Your task to perform on an android device: toggle notification dots Image 0: 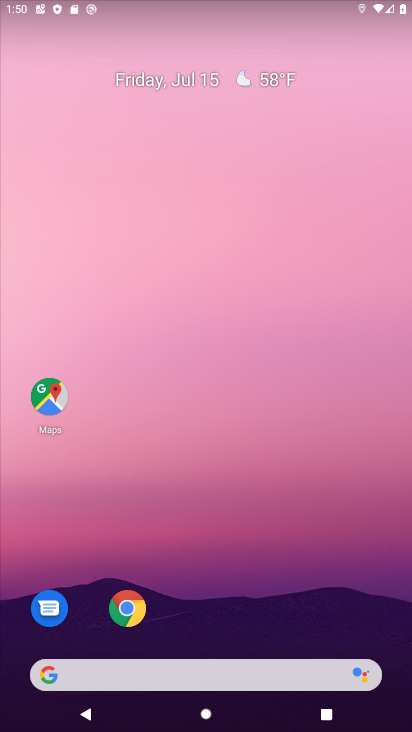
Step 0: drag from (247, 597) to (199, 194)
Your task to perform on an android device: toggle notification dots Image 1: 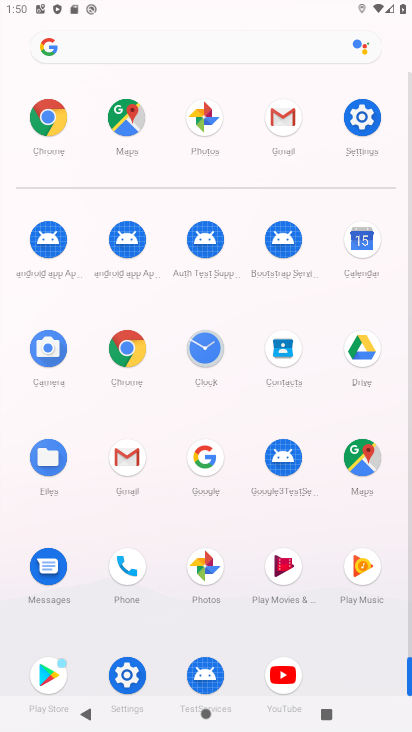
Step 1: click (363, 115)
Your task to perform on an android device: toggle notification dots Image 2: 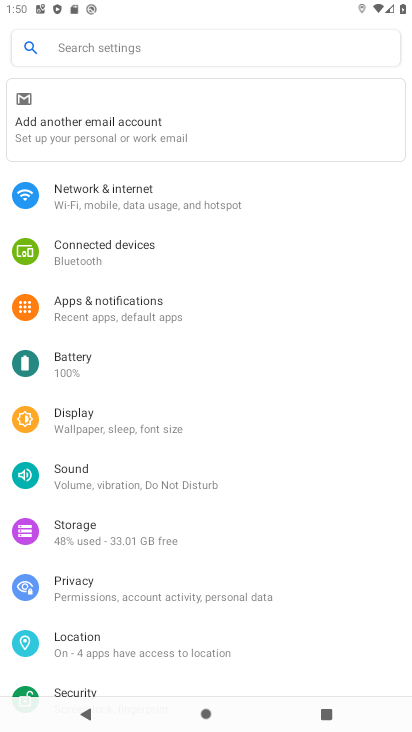
Step 2: drag from (191, 541) to (176, 226)
Your task to perform on an android device: toggle notification dots Image 3: 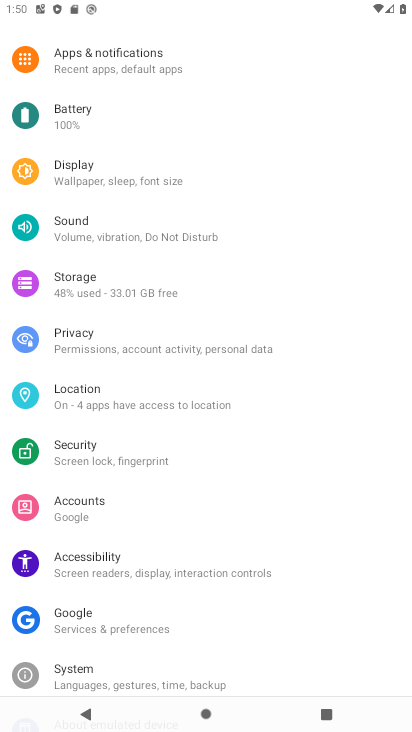
Step 3: click (106, 70)
Your task to perform on an android device: toggle notification dots Image 4: 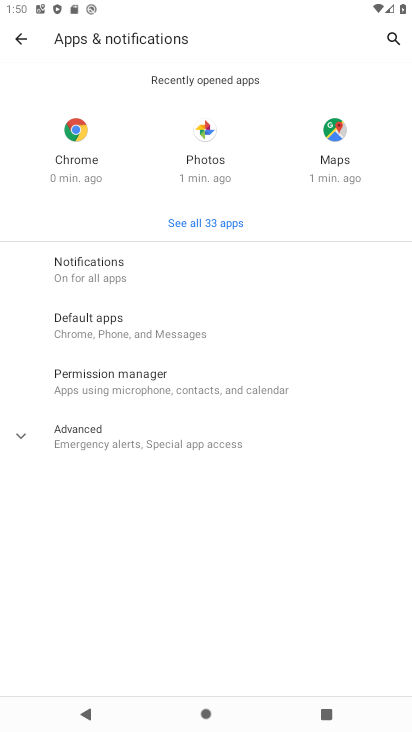
Step 4: click (101, 427)
Your task to perform on an android device: toggle notification dots Image 5: 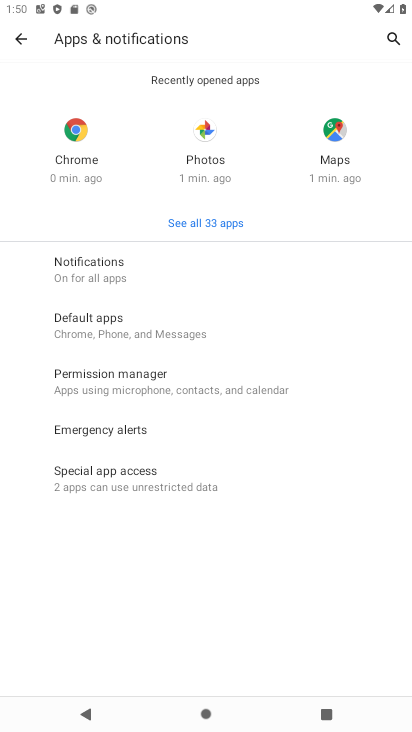
Step 5: click (77, 267)
Your task to perform on an android device: toggle notification dots Image 6: 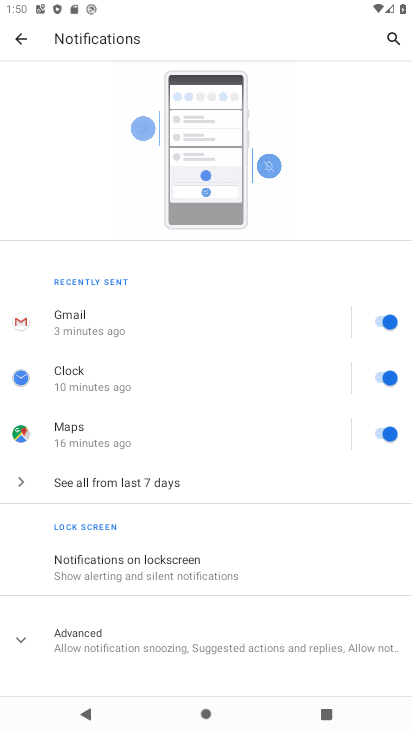
Step 6: click (108, 637)
Your task to perform on an android device: toggle notification dots Image 7: 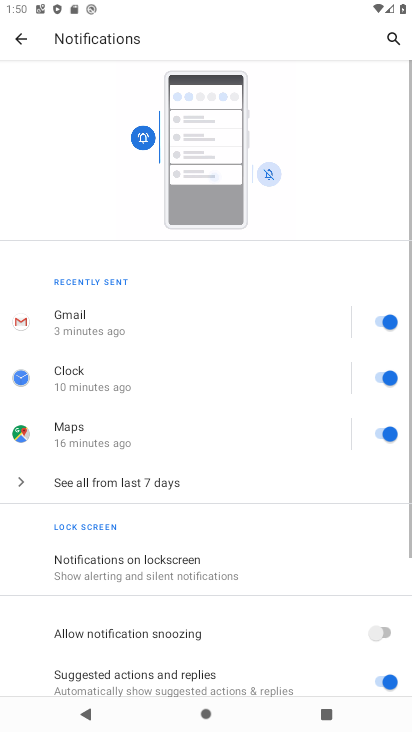
Step 7: drag from (260, 569) to (257, 369)
Your task to perform on an android device: toggle notification dots Image 8: 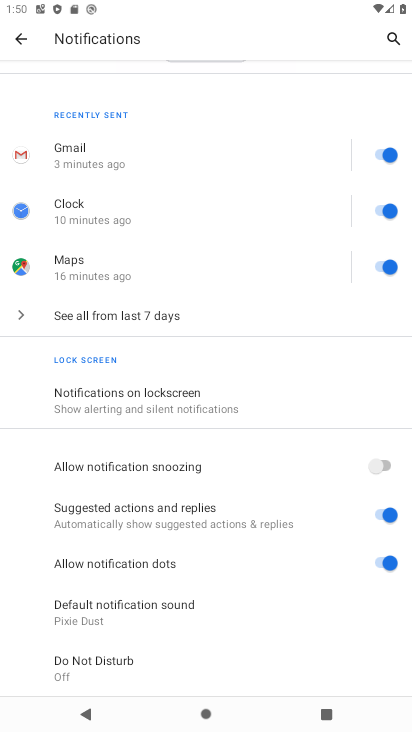
Step 8: click (377, 558)
Your task to perform on an android device: toggle notification dots Image 9: 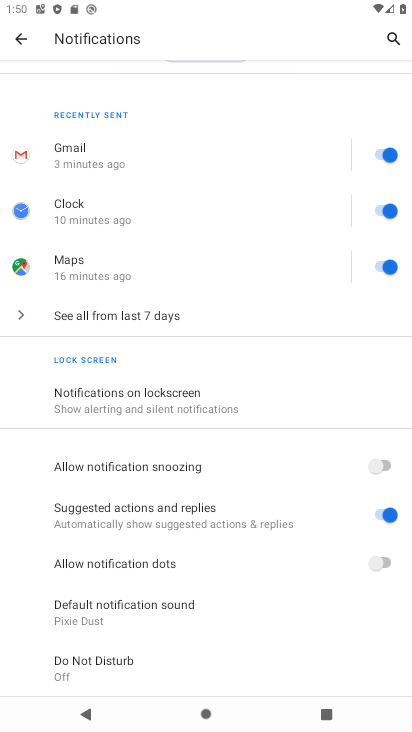
Step 9: task complete